Your task to perform on an android device: Open the phone app and click the voicemail tab. Image 0: 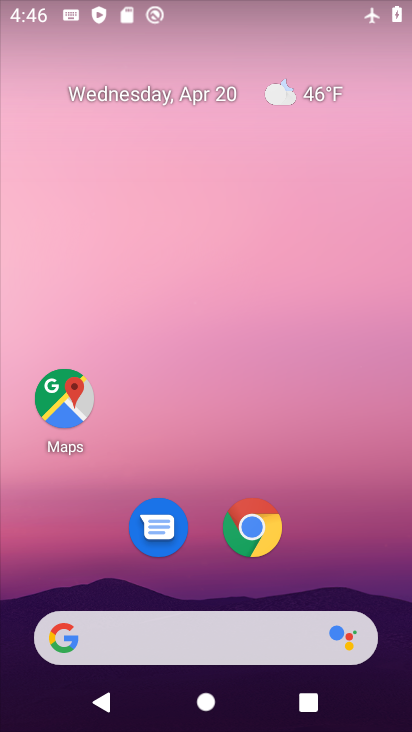
Step 0: drag from (258, 374) to (285, 243)
Your task to perform on an android device: Open the phone app and click the voicemail tab. Image 1: 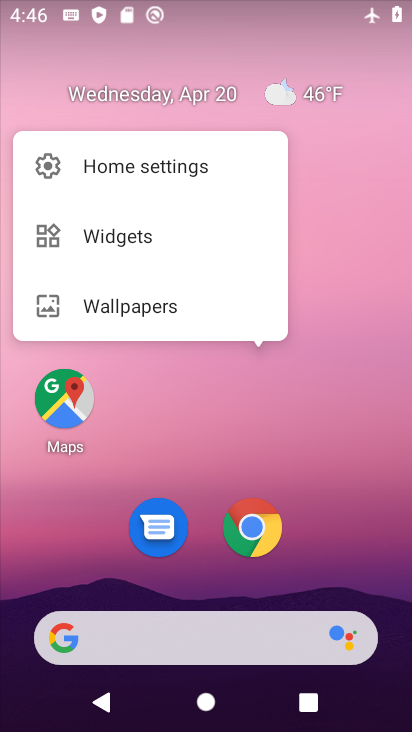
Step 1: click (170, 599)
Your task to perform on an android device: Open the phone app and click the voicemail tab. Image 2: 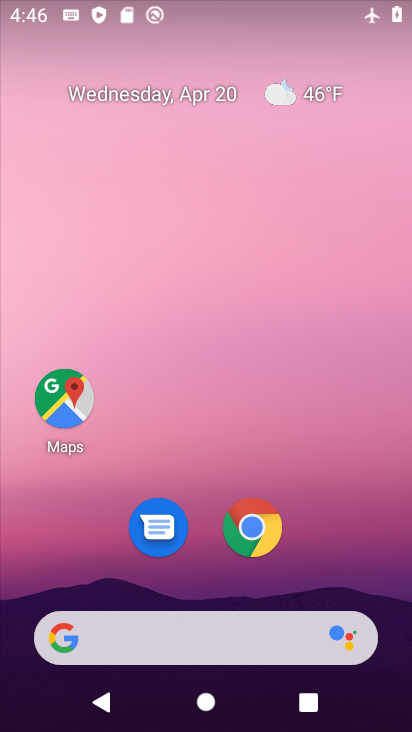
Step 2: drag from (180, 589) to (188, 226)
Your task to perform on an android device: Open the phone app and click the voicemail tab. Image 3: 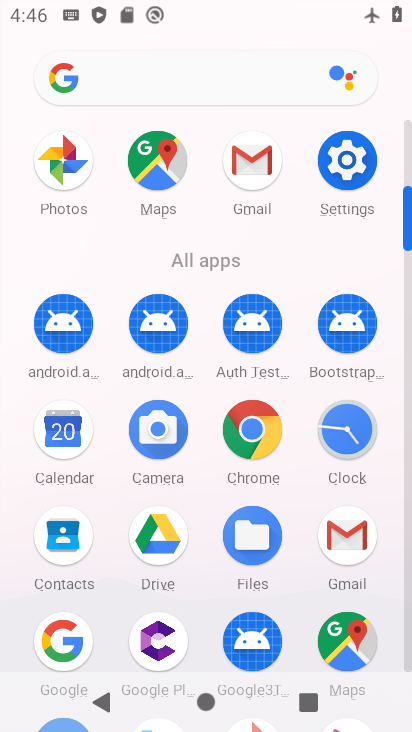
Step 3: drag from (177, 640) to (238, 226)
Your task to perform on an android device: Open the phone app and click the voicemail tab. Image 4: 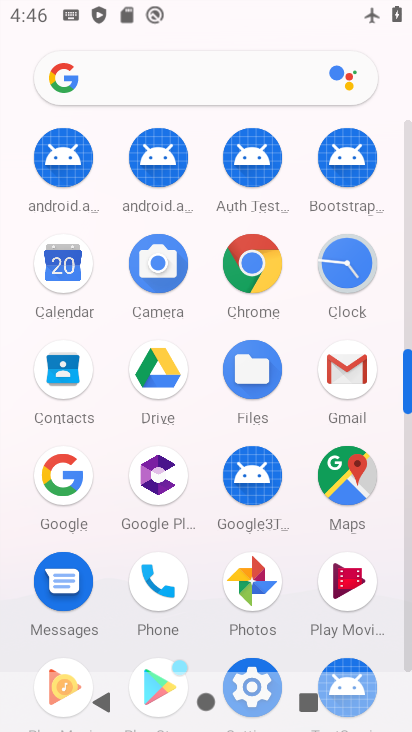
Step 4: click (167, 575)
Your task to perform on an android device: Open the phone app and click the voicemail tab. Image 5: 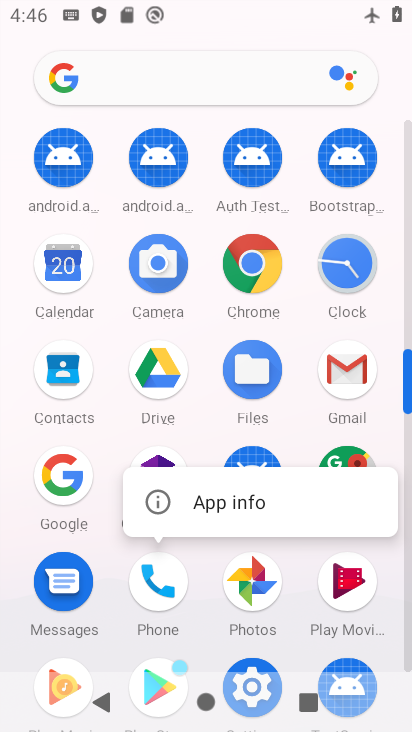
Step 5: click (239, 498)
Your task to perform on an android device: Open the phone app and click the voicemail tab. Image 6: 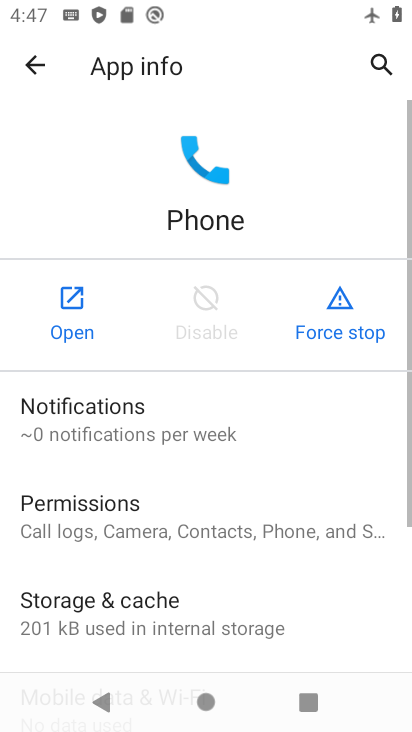
Step 6: click (76, 321)
Your task to perform on an android device: Open the phone app and click the voicemail tab. Image 7: 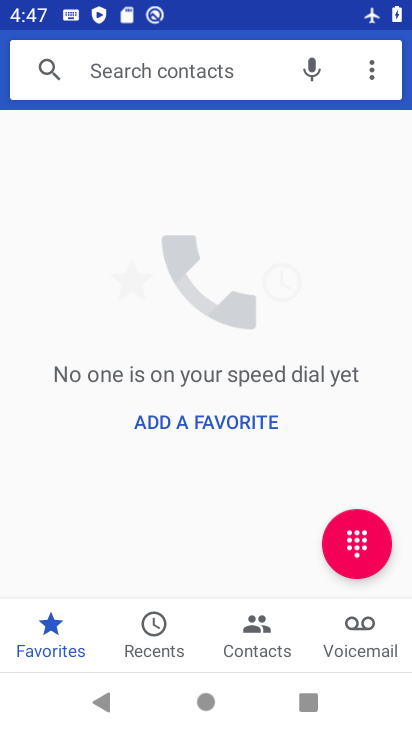
Step 7: click (368, 637)
Your task to perform on an android device: Open the phone app and click the voicemail tab. Image 8: 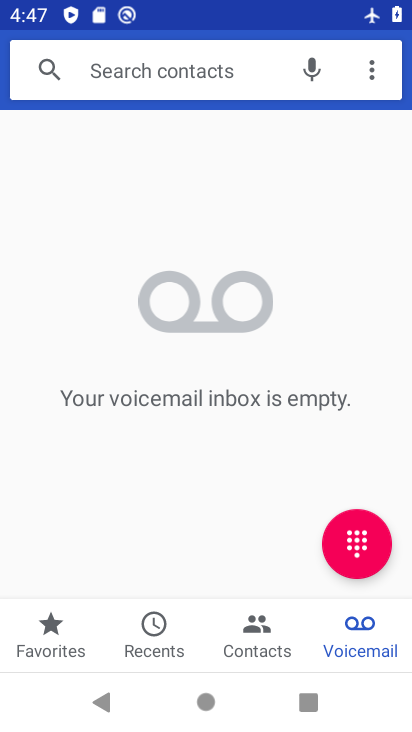
Step 8: task complete